Your task to perform on an android device: Search for sushi restaurants on Maps Image 0: 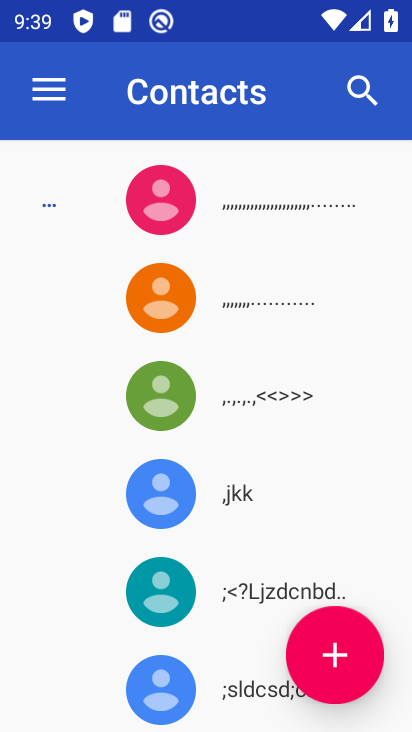
Step 0: press home button
Your task to perform on an android device: Search for sushi restaurants on Maps Image 1: 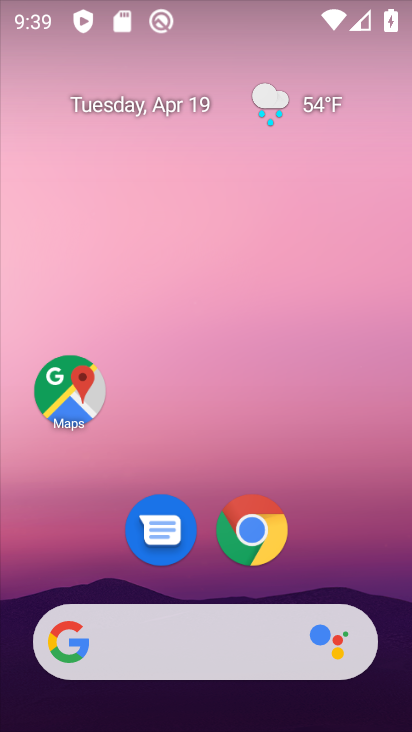
Step 1: click (65, 389)
Your task to perform on an android device: Search for sushi restaurants on Maps Image 2: 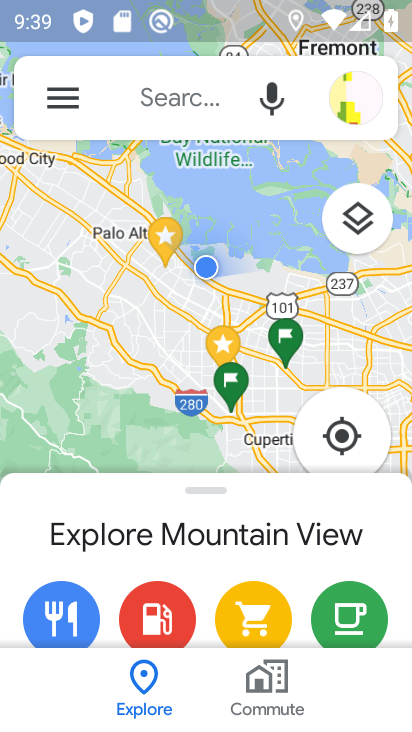
Step 2: click (156, 101)
Your task to perform on an android device: Search for sushi restaurants on Maps Image 3: 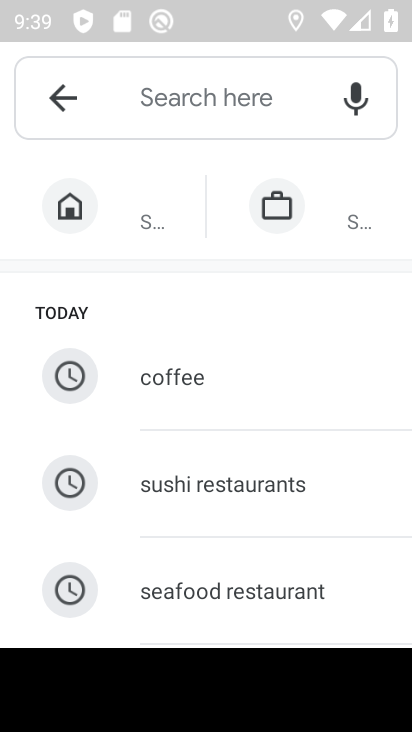
Step 3: click (228, 489)
Your task to perform on an android device: Search for sushi restaurants on Maps Image 4: 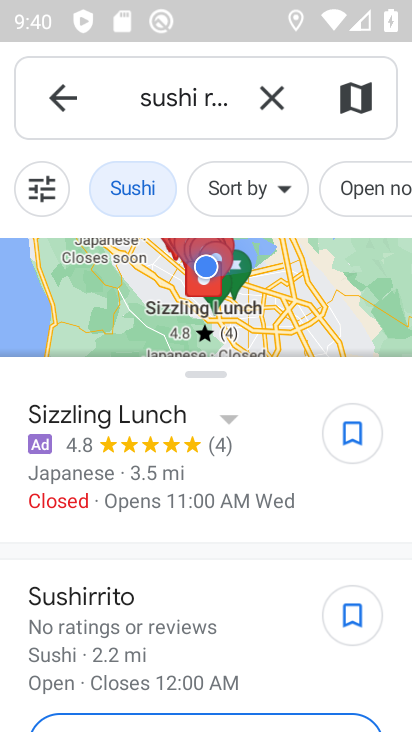
Step 4: task complete